Your task to perform on an android device: open chrome and create a bookmark for the current page Image 0: 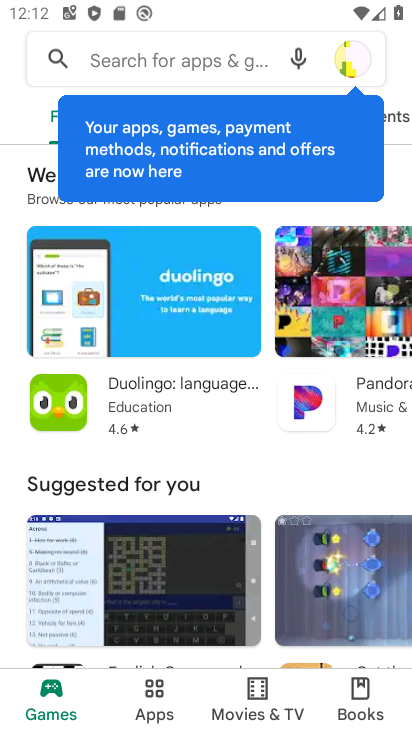
Step 0: press home button
Your task to perform on an android device: open chrome and create a bookmark for the current page Image 1: 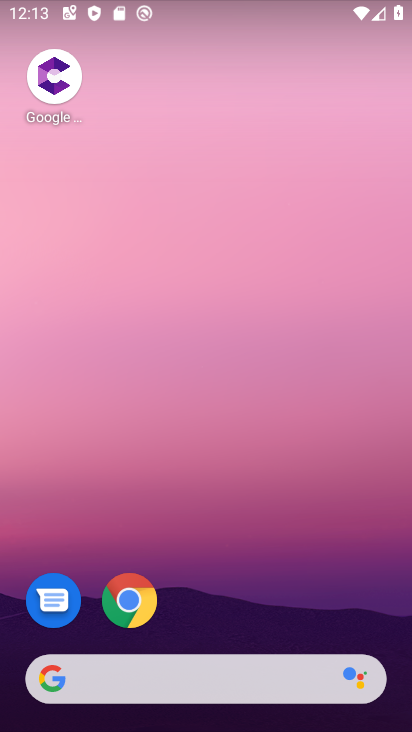
Step 1: click (136, 595)
Your task to perform on an android device: open chrome and create a bookmark for the current page Image 2: 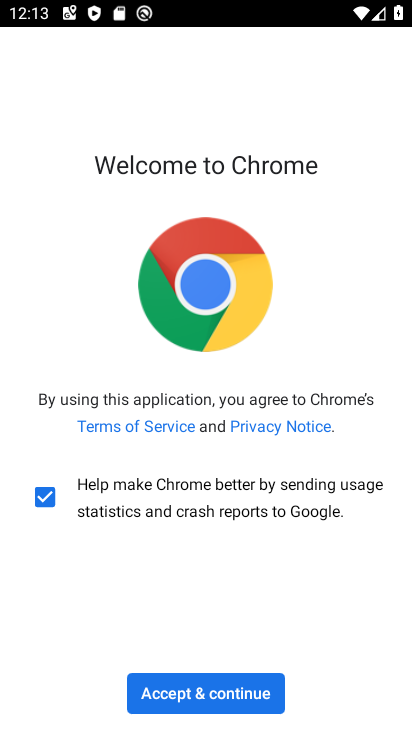
Step 2: click (247, 692)
Your task to perform on an android device: open chrome and create a bookmark for the current page Image 3: 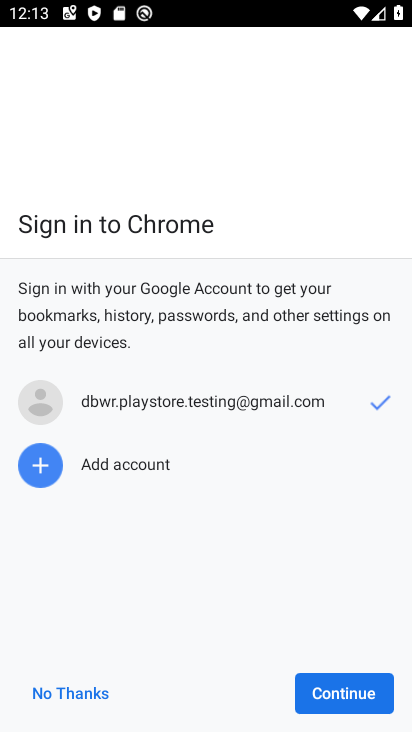
Step 3: click (340, 699)
Your task to perform on an android device: open chrome and create a bookmark for the current page Image 4: 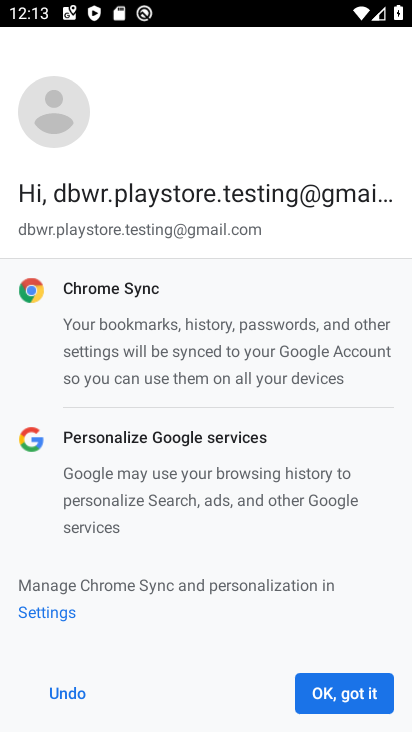
Step 4: click (340, 676)
Your task to perform on an android device: open chrome and create a bookmark for the current page Image 5: 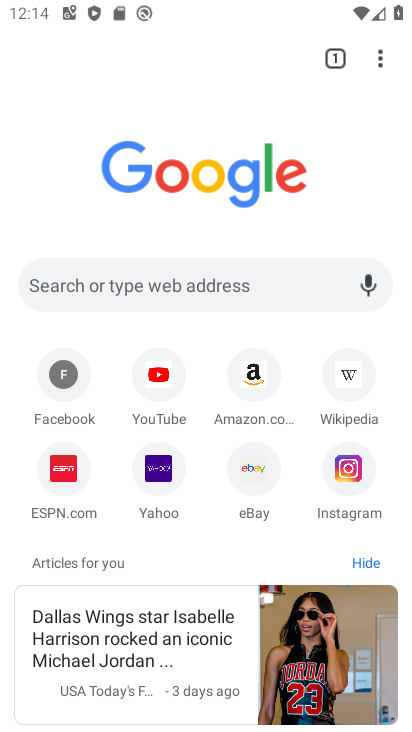
Step 5: click (386, 58)
Your task to perform on an android device: open chrome and create a bookmark for the current page Image 6: 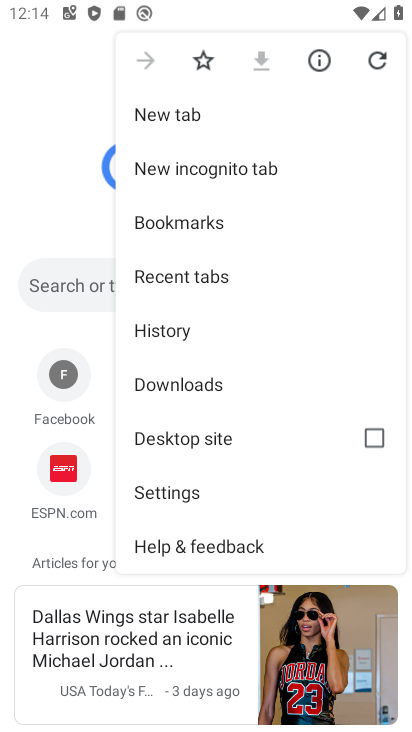
Step 6: click (190, 61)
Your task to perform on an android device: open chrome and create a bookmark for the current page Image 7: 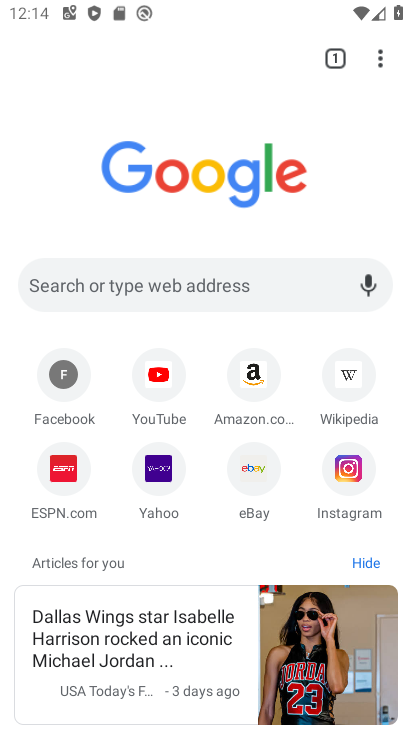
Step 7: task complete